Your task to perform on an android device: Search for razer huntsman on target.com, select the first entry, add it to the cart, then select checkout. Image 0: 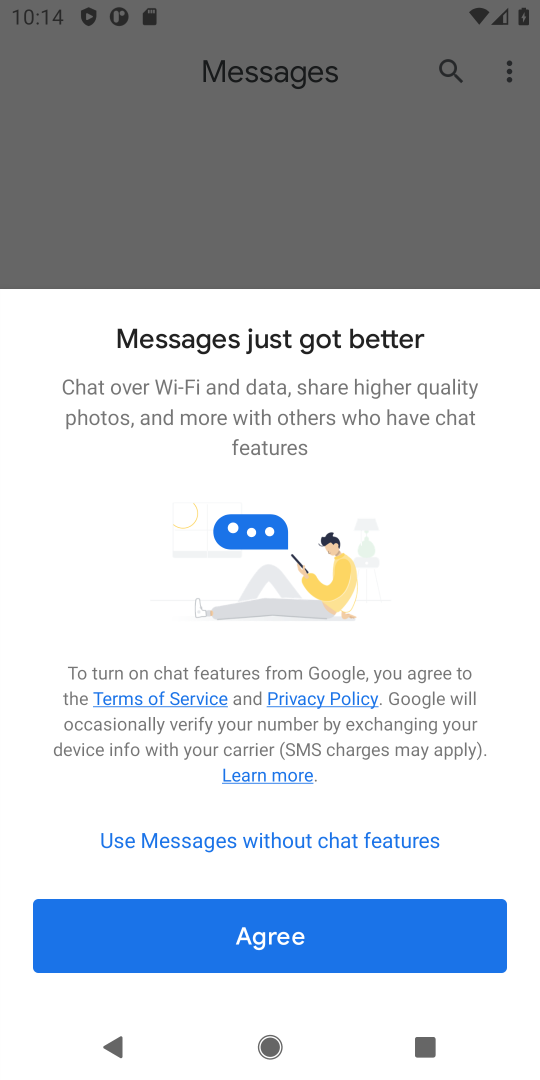
Step 0: press home button
Your task to perform on an android device: Search for razer huntsman on target.com, select the first entry, add it to the cart, then select checkout. Image 1: 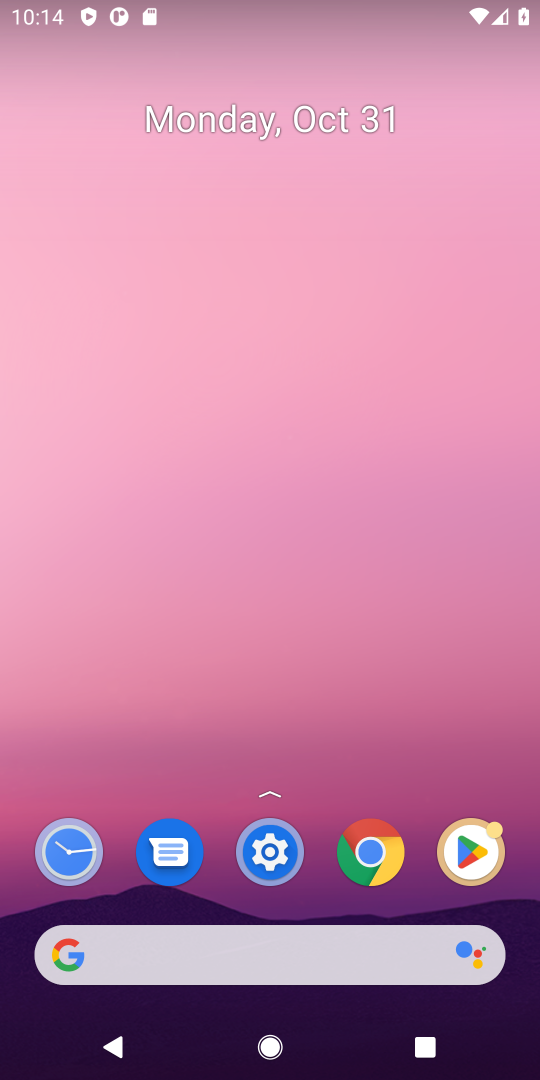
Step 1: drag from (186, 853) to (194, 4)
Your task to perform on an android device: Search for razer huntsman on target.com, select the first entry, add it to the cart, then select checkout. Image 2: 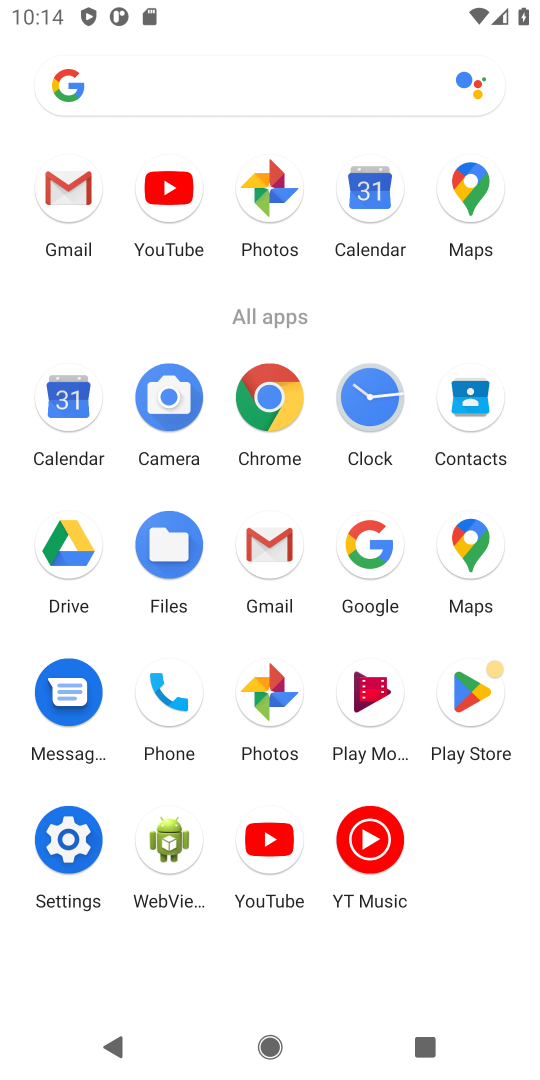
Step 2: click (283, 418)
Your task to perform on an android device: Search for razer huntsman on target.com, select the first entry, add it to the cart, then select checkout. Image 3: 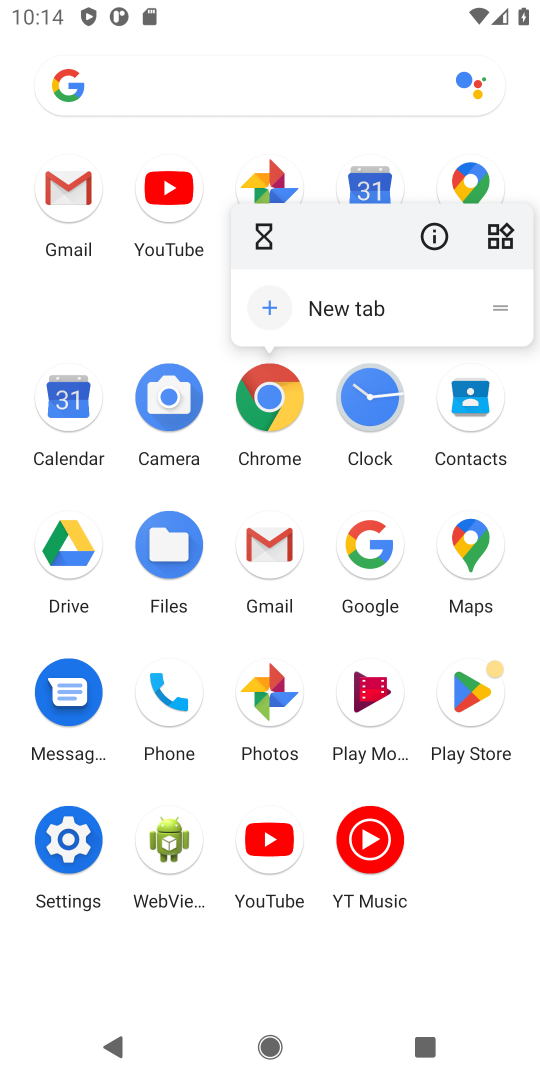
Step 3: click (261, 418)
Your task to perform on an android device: Search for razer huntsman on target.com, select the first entry, add it to the cart, then select checkout. Image 4: 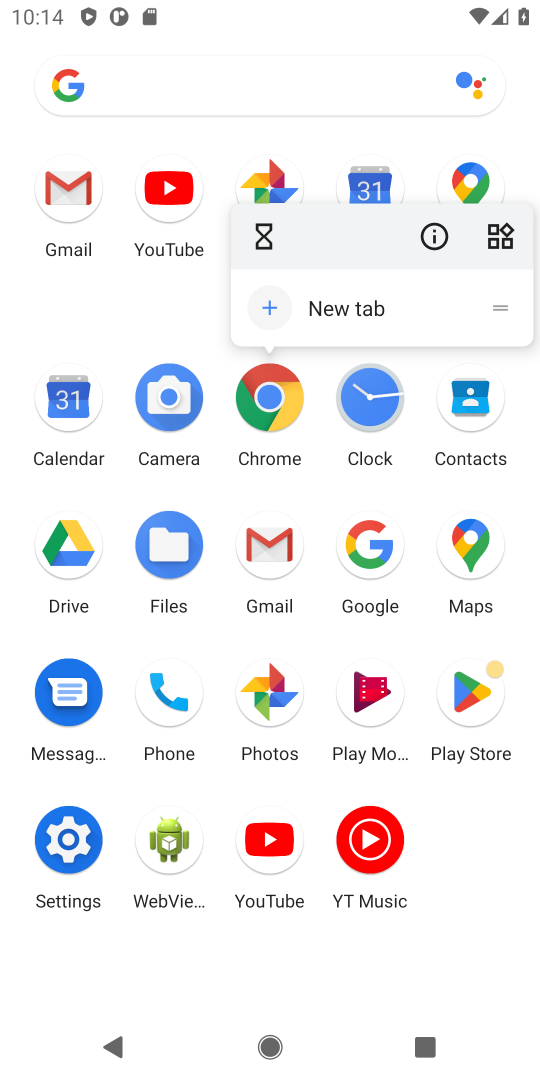
Step 4: click (261, 418)
Your task to perform on an android device: Search for razer huntsman on target.com, select the first entry, add it to the cart, then select checkout. Image 5: 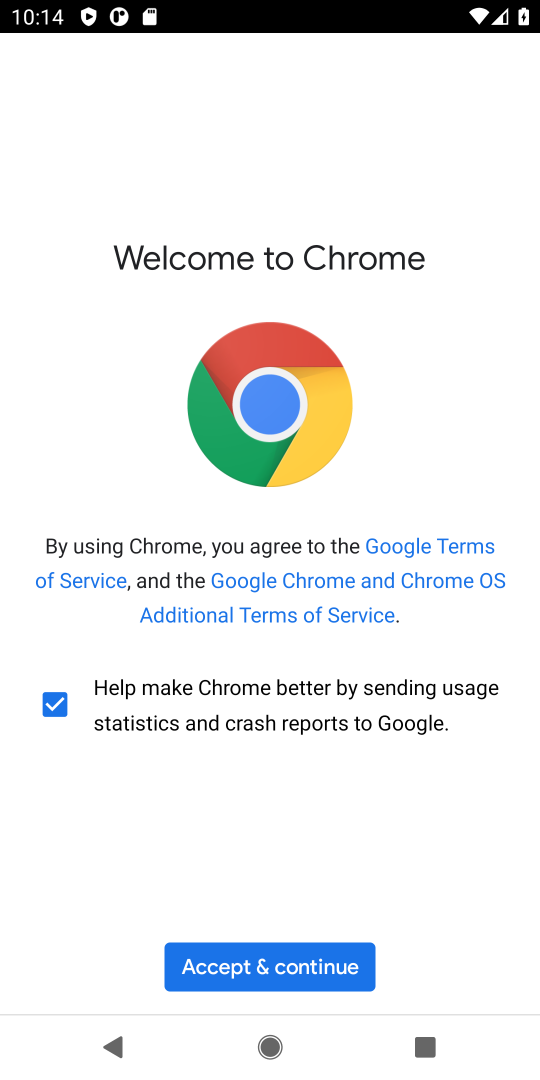
Step 5: click (227, 949)
Your task to perform on an android device: Search for razer huntsman on target.com, select the first entry, add it to the cart, then select checkout. Image 6: 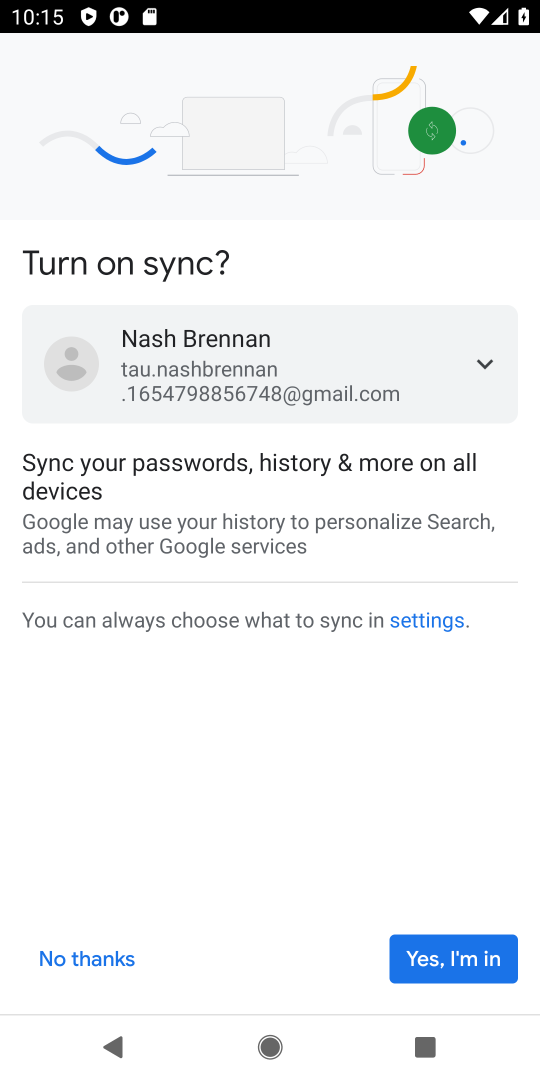
Step 6: click (452, 956)
Your task to perform on an android device: Search for razer huntsman on target.com, select the first entry, add it to the cart, then select checkout. Image 7: 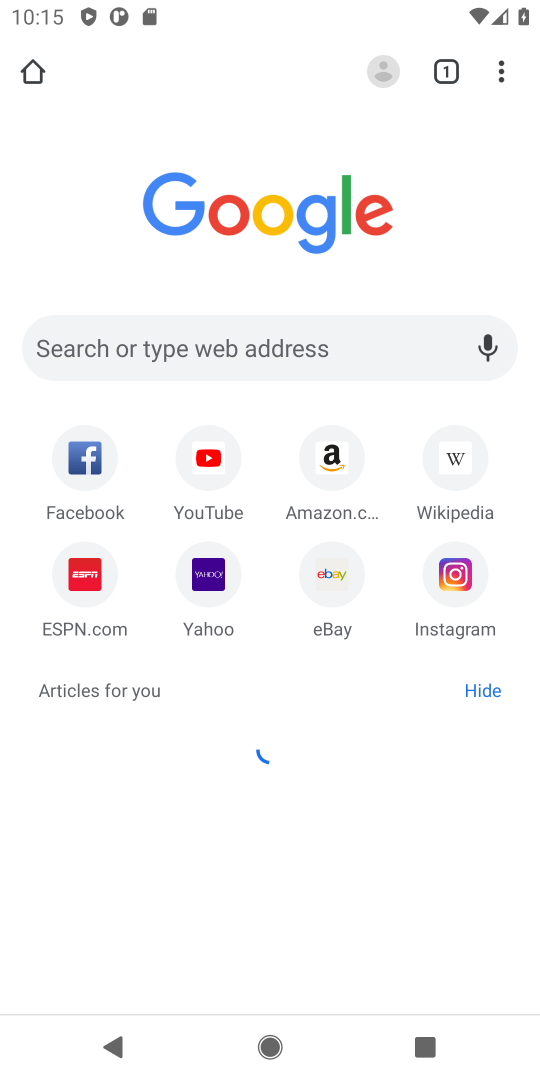
Step 7: click (152, 330)
Your task to perform on an android device: Search for razer huntsman on target.com, select the first entry, add it to the cart, then select checkout. Image 8: 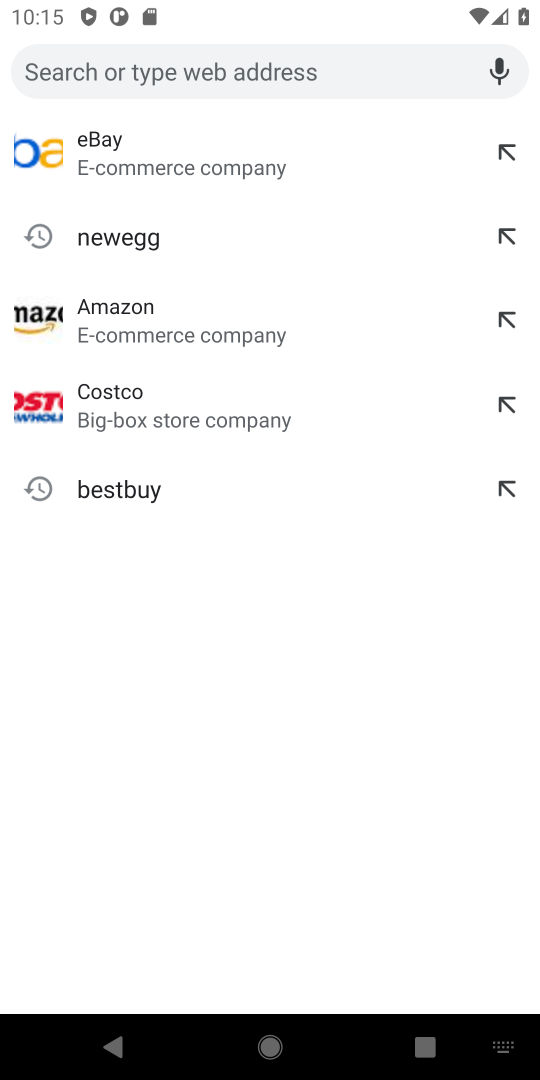
Step 8: type " target.com"
Your task to perform on an android device: Search for razer huntsman on target.com, select the first entry, add it to the cart, then select checkout. Image 9: 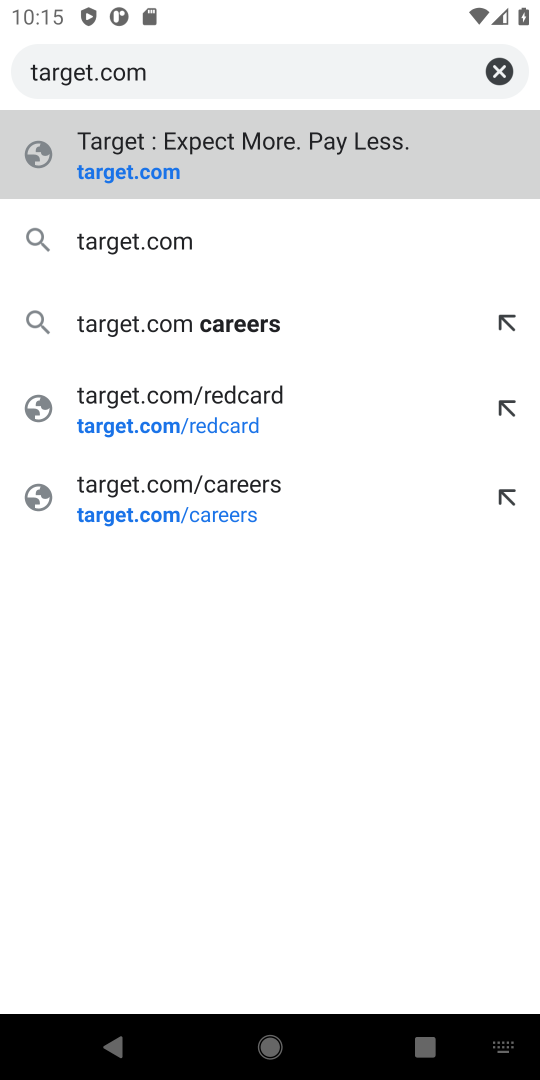
Step 9: press enter
Your task to perform on an android device: Search for razer huntsman on target.com, select the first entry, add it to the cart, then select checkout. Image 10: 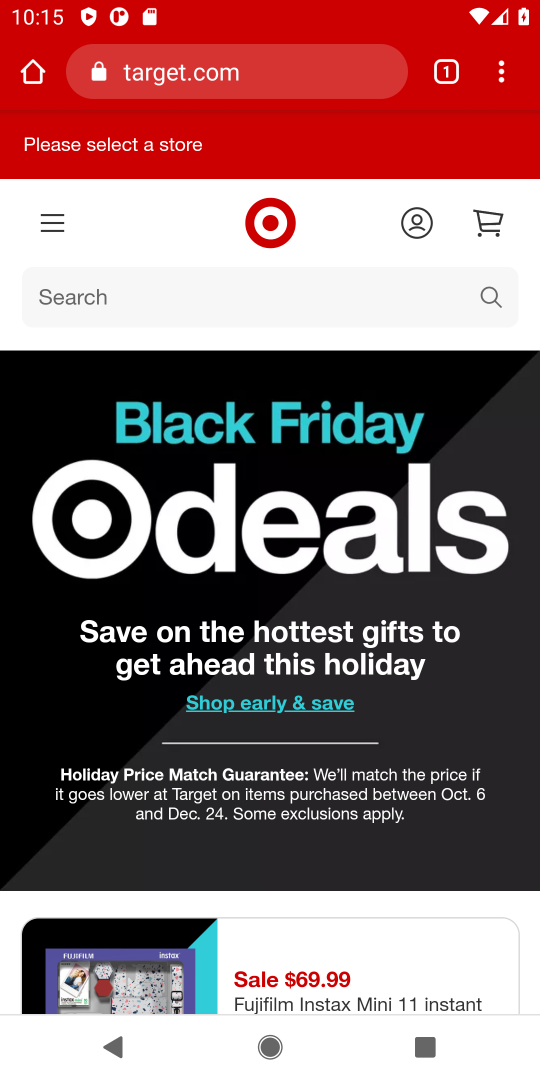
Step 10: drag from (169, 759) to (195, 355)
Your task to perform on an android device: Search for razer huntsman on target.com, select the first entry, add it to the cart, then select checkout. Image 11: 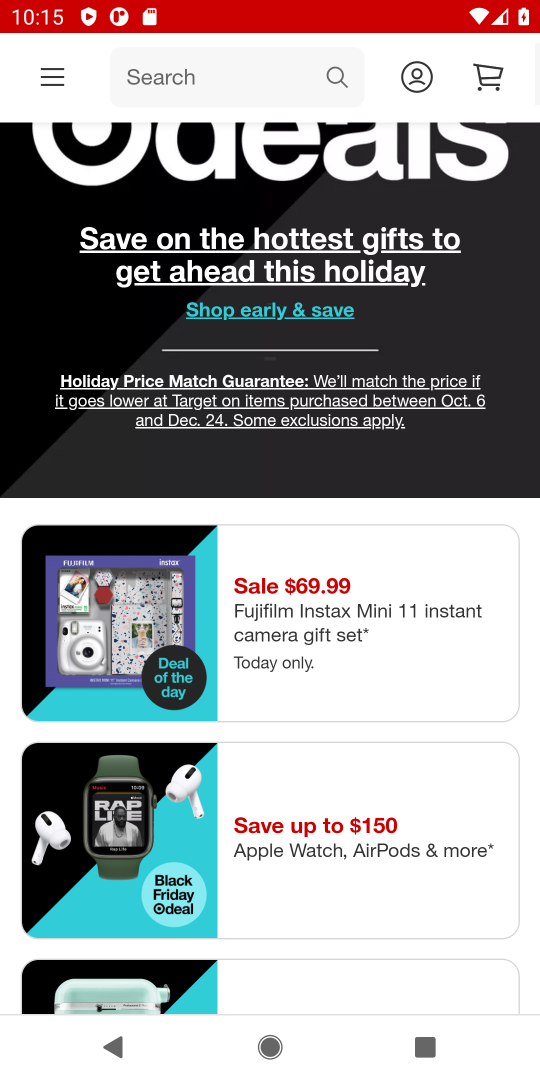
Step 11: drag from (222, 691) to (195, 464)
Your task to perform on an android device: Search for razer huntsman on target.com, select the first entry, add it to the cart, then select checkout. Image 12: 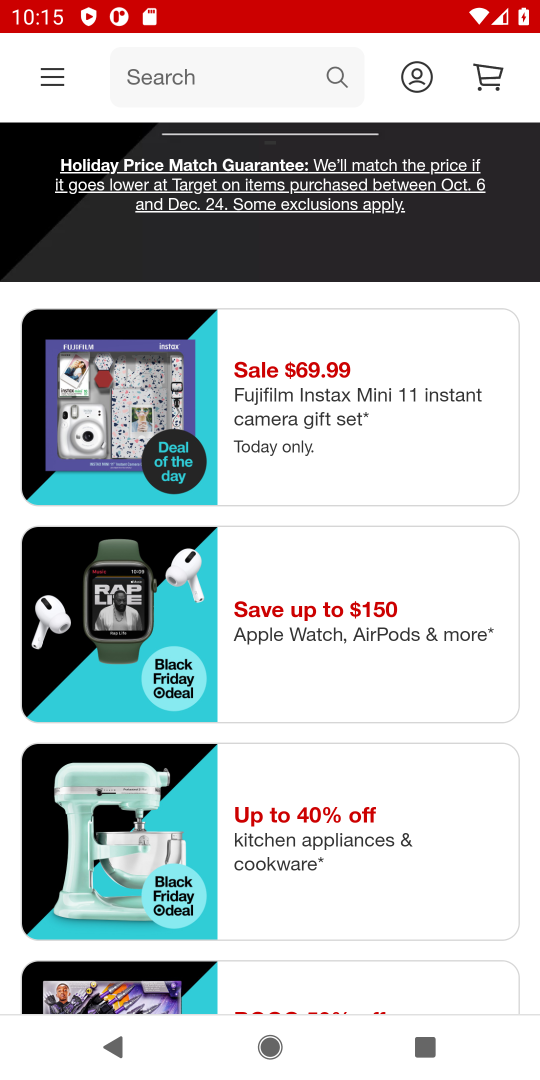
Step 12: click (96, 418)
Your task to perform on an android device: Search for razer huntsman on target.com, select the first entry, add it to the cart, then select checkout. Image 13: 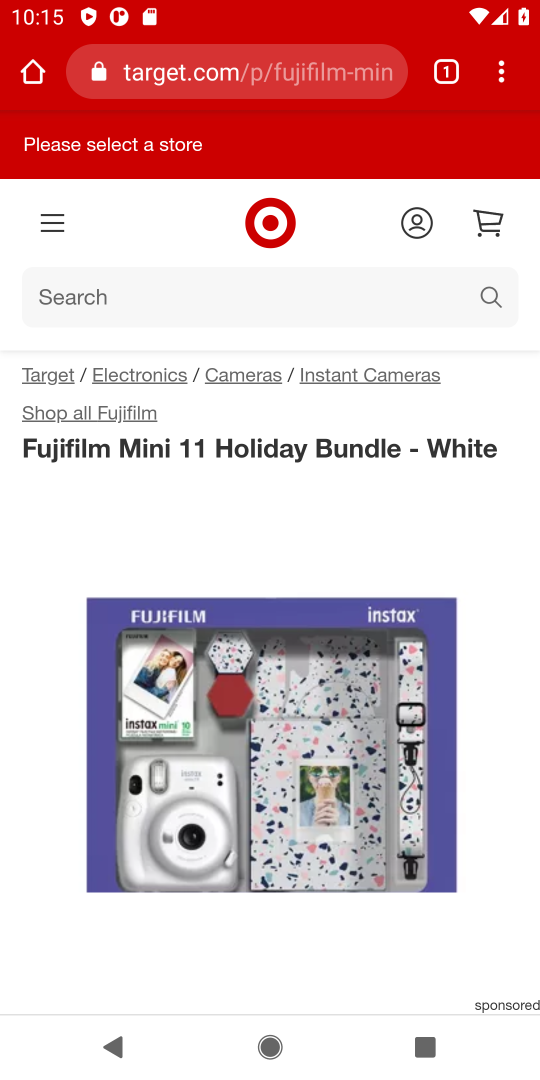
Step 13: drag from (228, 739) to (205, 301)
Your task to perform on an android device: Search for razer huntsman on target.com, select the first entry, add it to the cart, then select checkout. Image 14: 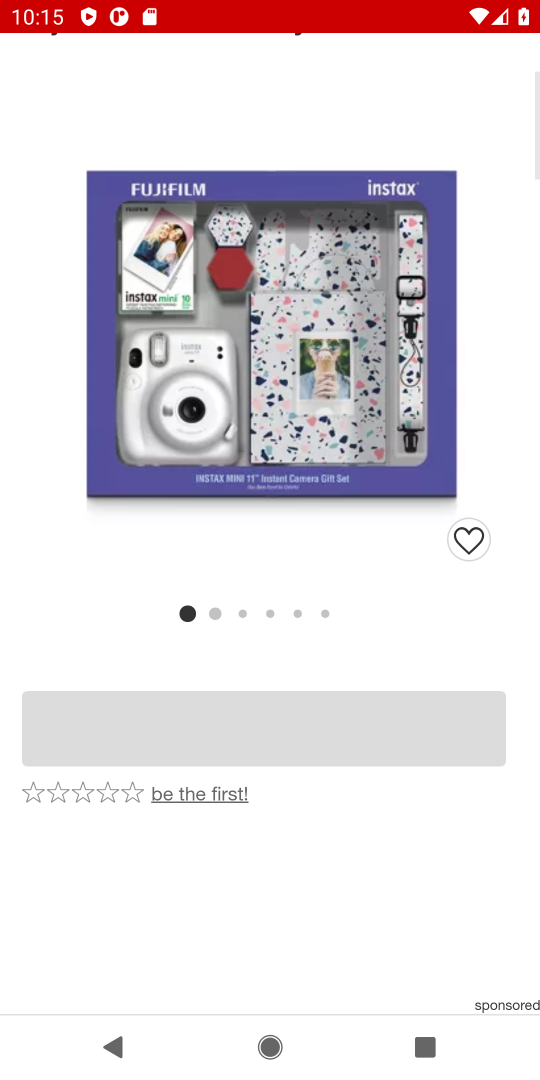
Step 14: drag from (275, 882) to (189, 445)
Your task to perform on an android device: Search for razer huntsman on target.com, select the first entry, add it to the cart, then select checkout. Image 15: 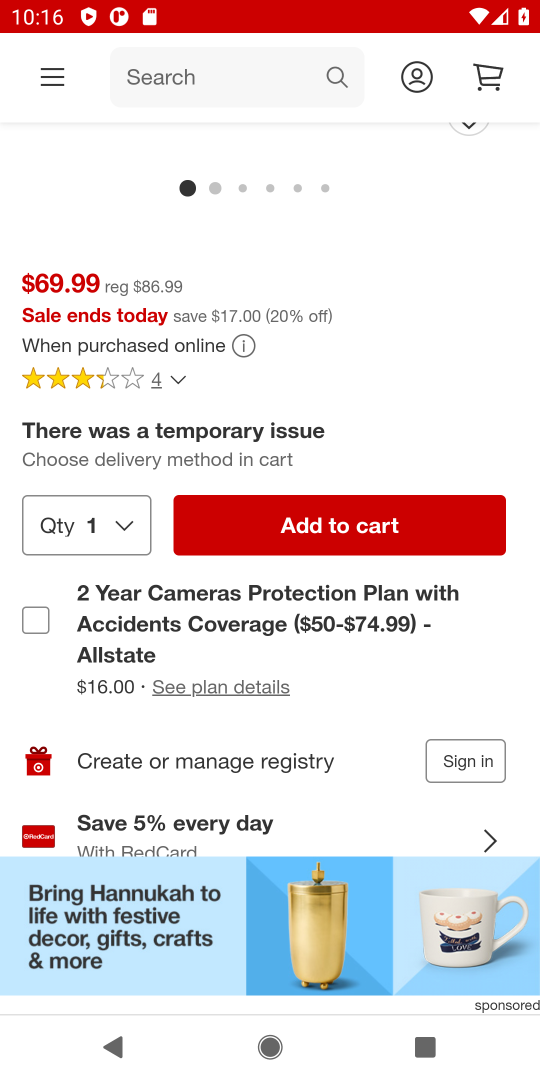
Step 15: drag from (270, 664) to (263, 578)
Your task to perform on an android device: Search for razer huntsman on target.com, select the first entry, add it to the cart, then select checkout. Image 16: 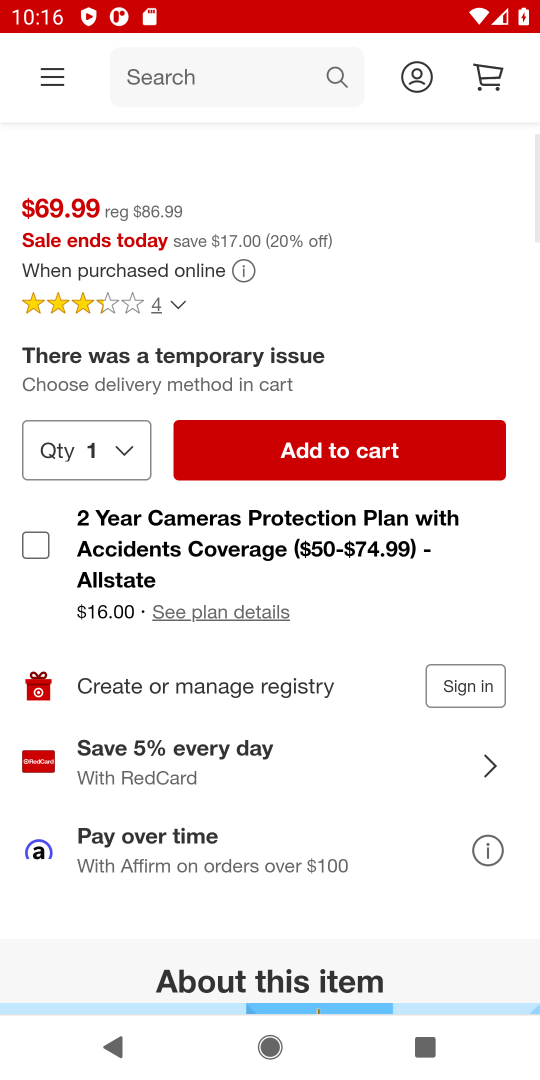
Step 16: click (273, 518)
Your task to perform on an android device: Search for razer huntsman on target.com, select the first entry, add it to the cart, then select checkout. Image 17: 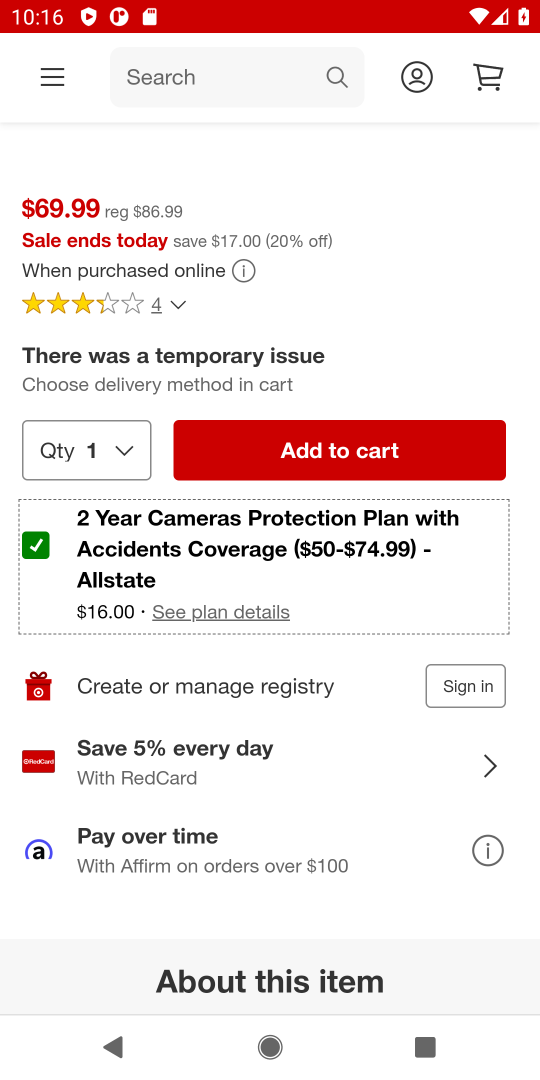
Step 17: click (275, 464)
Your task to perform on an android device: Search for razer huntsman on target.com, select the first entry, add it to the cart, then select checkout. Image 18: 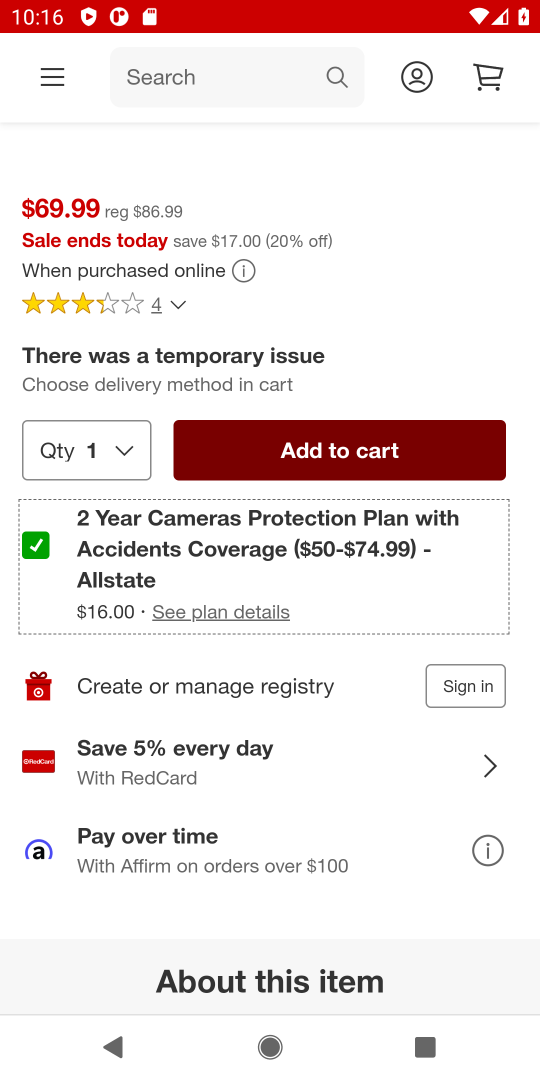
Step 18: click (278, 440)
Your task to perform on an android device: Search for razer huntsman on target.com, select the first entry, add it to the cart, then select checkout. Image 19: 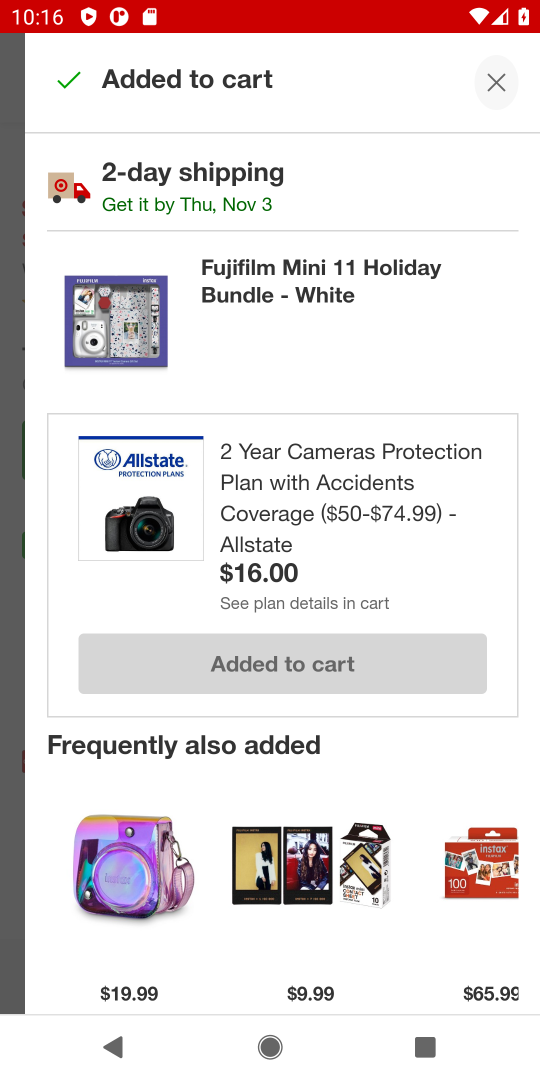
Step 19: drag from (267, 360) to (290, 841)
Your task to perform on an android device: Search for razer huntsman on target.com, select the first entry, add it to the cart, then select checkout. Image 20: 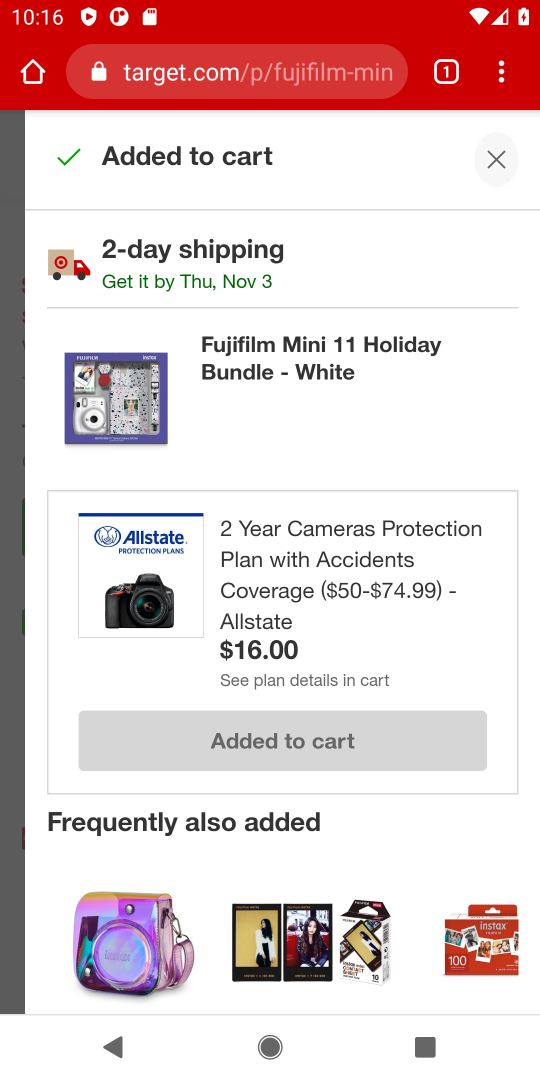
Step 20: drag from (314, 779) to (280, 374)
Your task to perform on an android device: Search for razer huntsman on target.com, select the first entry, add it to the cart, then select checkout. Image 21: 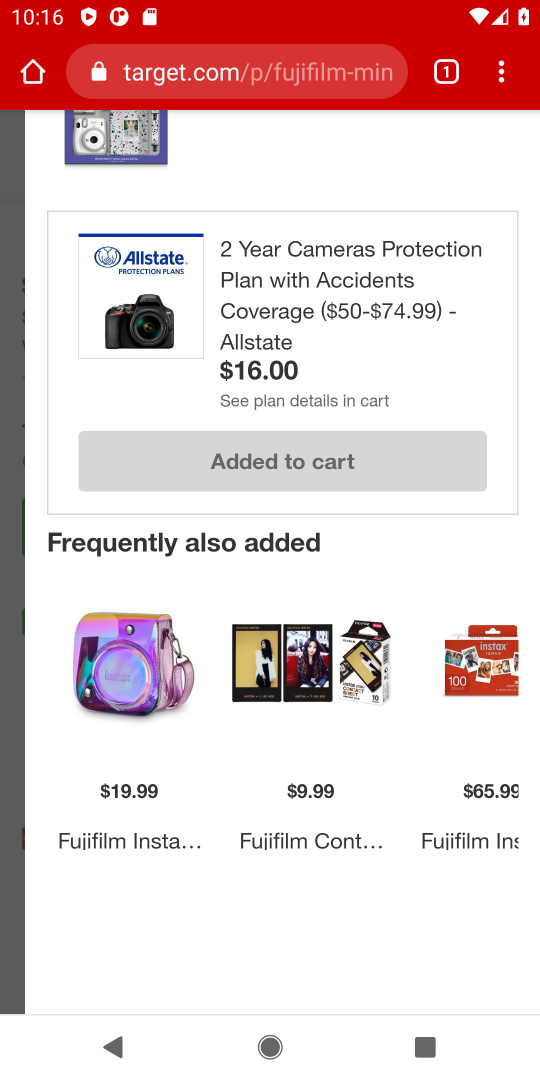
Step 21: drag from (317, 792) to (201, 358)
Your task to perform on an android device: Search for razer huntsman on target.com, select the first entry, add it to the cart, then select checkout. Image 22: 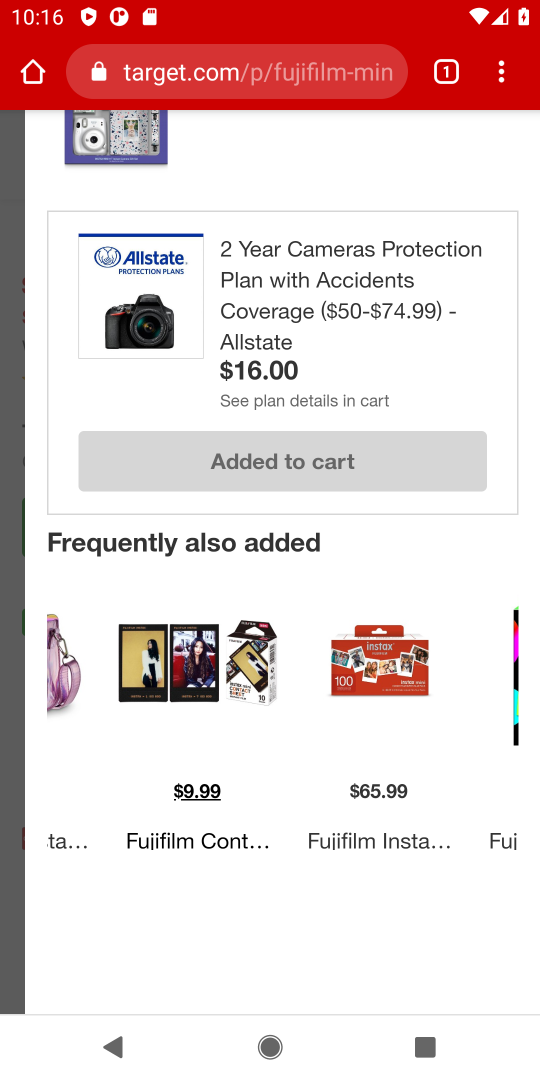
Step 22: drag from (275, 366) to (317, 872)
Your task to perform on an android device: Search for razer huntsman on target.com, select the first entry, add it to the cart, then select checkout. Image 23: 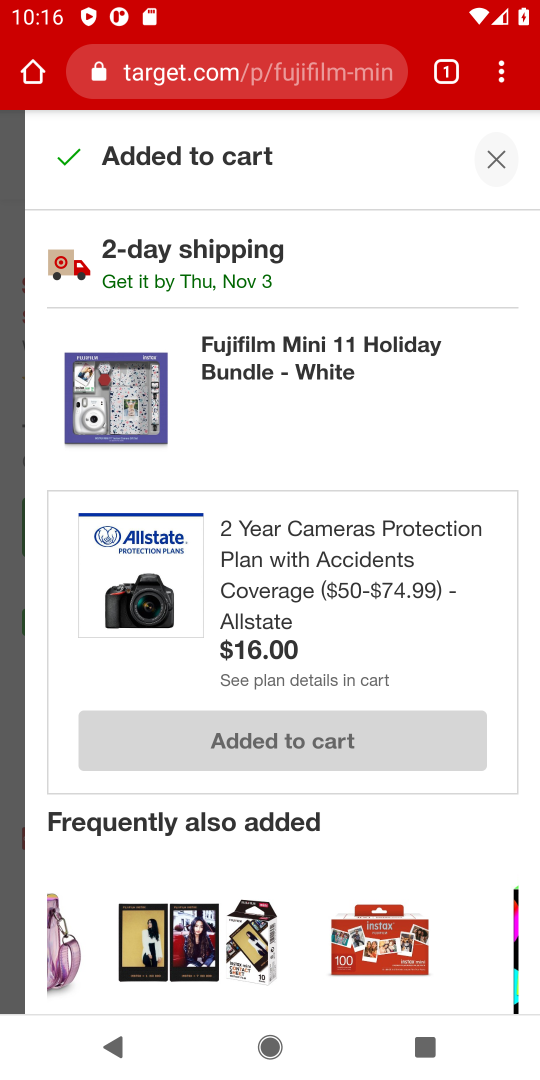
Step 23: click (250, 745)
Your task to perform on an android device: Search for razer huntsman on target.com, select the first entry, add it to the cart, then select checkout. Image 24: 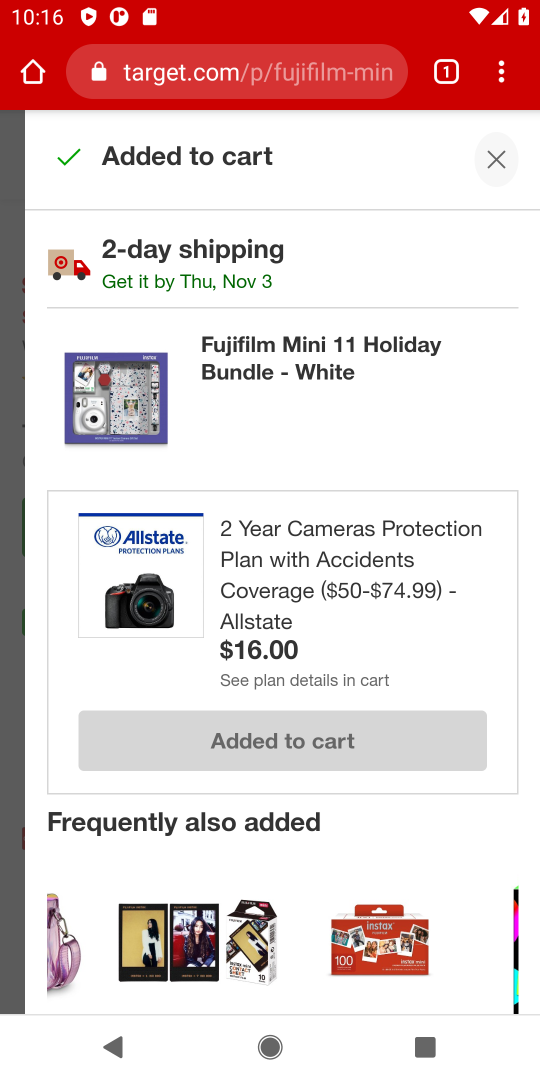
Step 24: drag from (311, 382) to (295, 634)
Your task to perform on an android device: Search for razer huntsman on target.com, select the first entry, add it to the cart, then select checkout. Image 25: 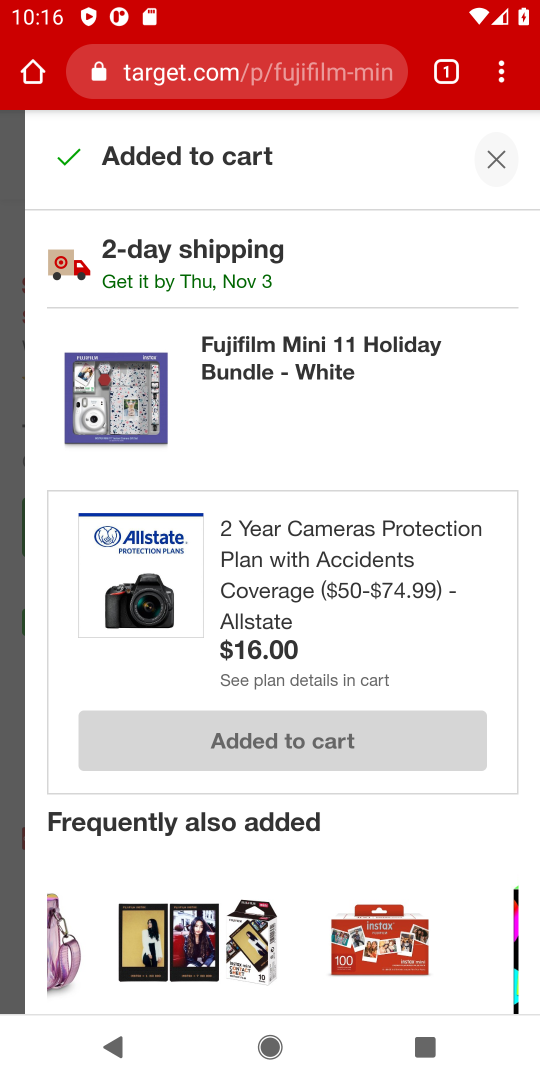
Step 25: click (481, 159)
Your task to perform on an android device: Search for razer huntsman on target.com, select the first entry, add it to the cart, then select checkout. Image 26: 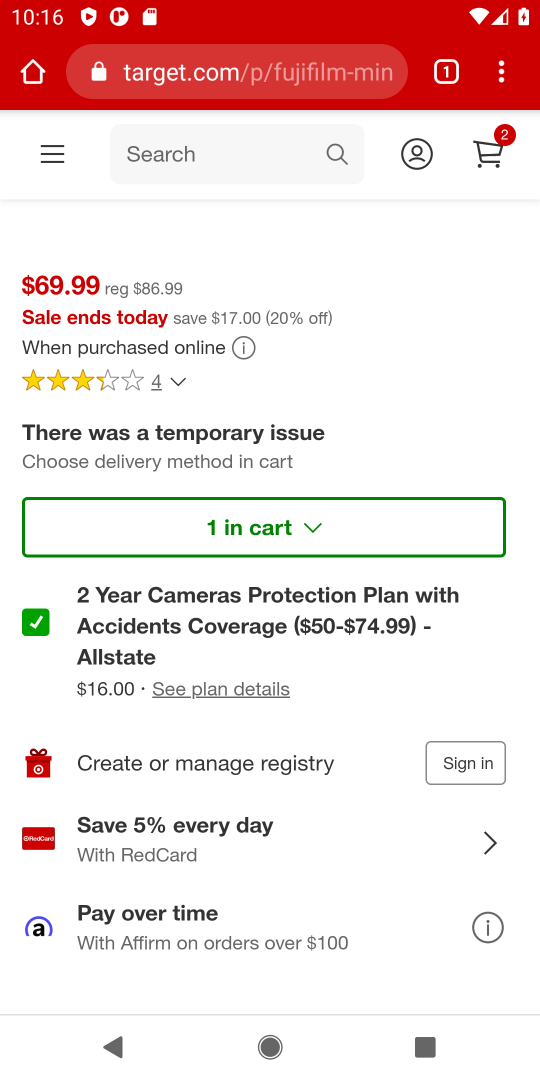
Step 26: click (489, 157)
Your task to perform on an android device: Search for razer huntsman on target.com, select the first entry, add it to the cart, then select checkout. Image 27: 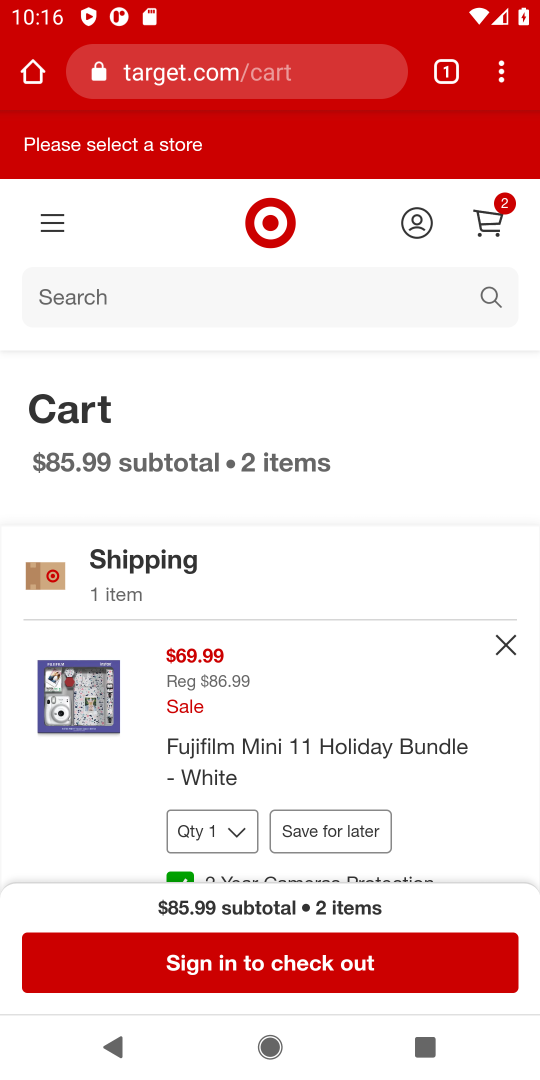
Step 27: click (325, 969)
Your task to perform on an android device: Search for razer huntsman on target.com, select the first entry, add it to the cart, then select checkout. Image 28: 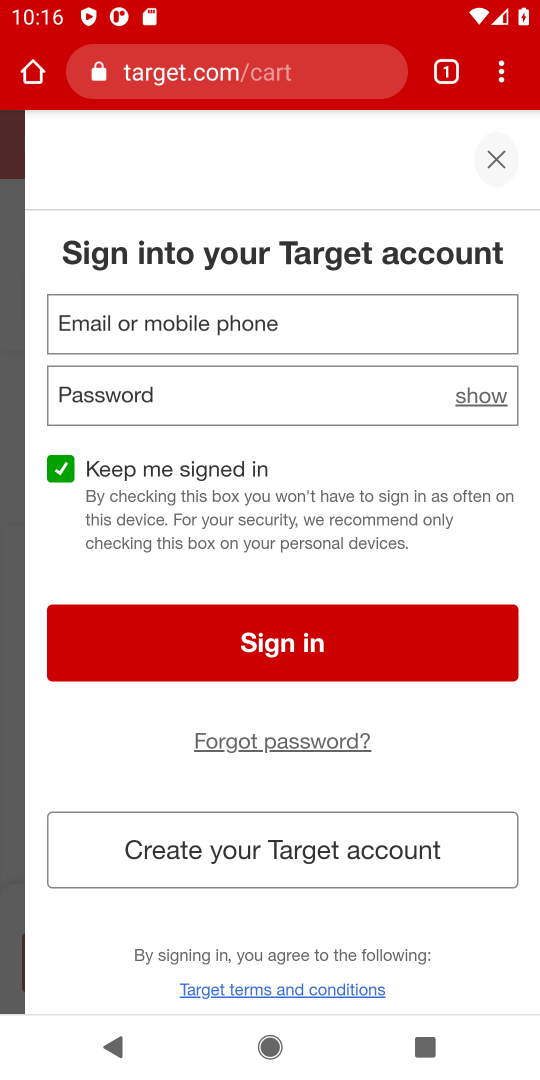
Step 28: task complete